Your task to perform on an android device: turn off data saver in the chrome app Image 0: 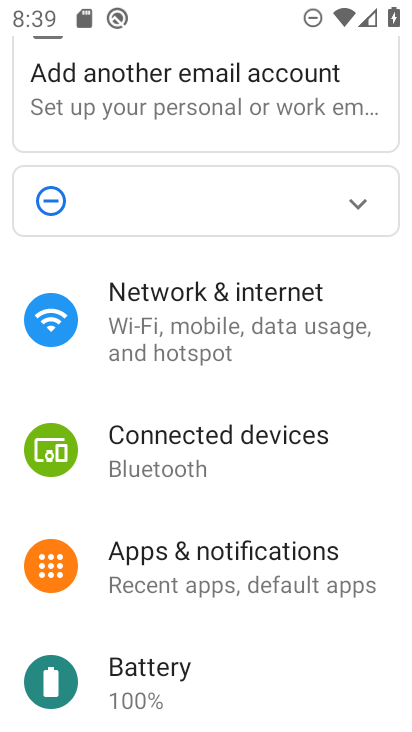
Step 0: press home button
Your task to perform on an android device: turn off data saver in the chrome app Image 1: 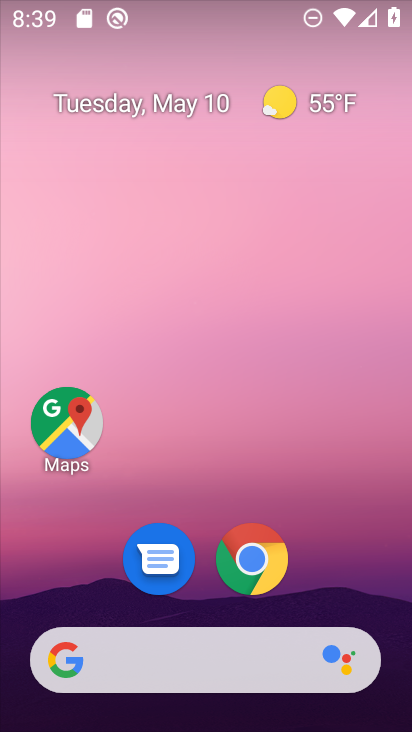
Step 1: click (249, 547)
Your task to perform on an android device: turn off data saver in the chrome app Image 2: 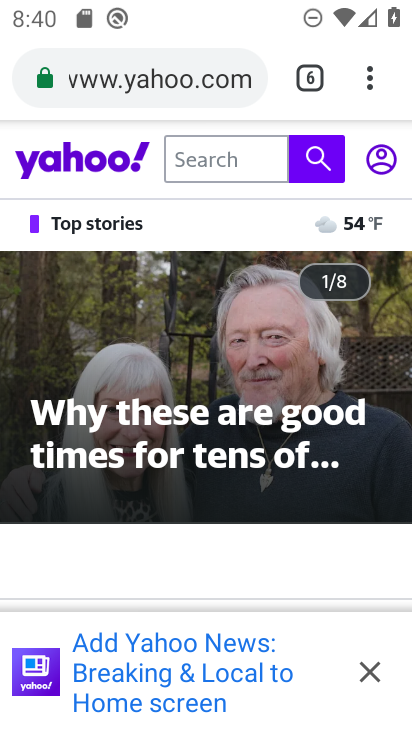
Step 2: click (370, 83)
Your task to perform on an android device: turn off data saver in the chrome app Image 3: 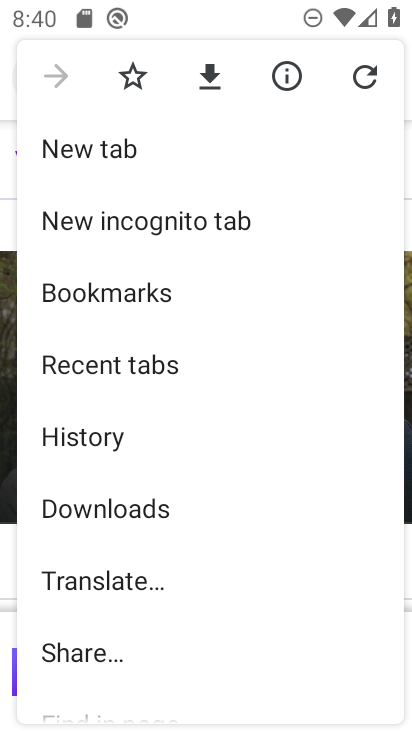
Step 3: drag from (139, 655) to (139, 244)
Your task to perform on an android device: turn off data saver in the chrome app Image 4: 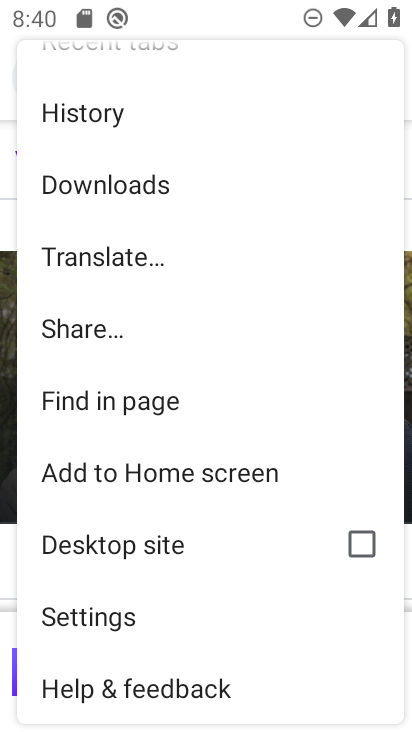
Step 4: click (94, 616)
Your task to perform on an android device: turn off data saver in the chrome app Image 5: 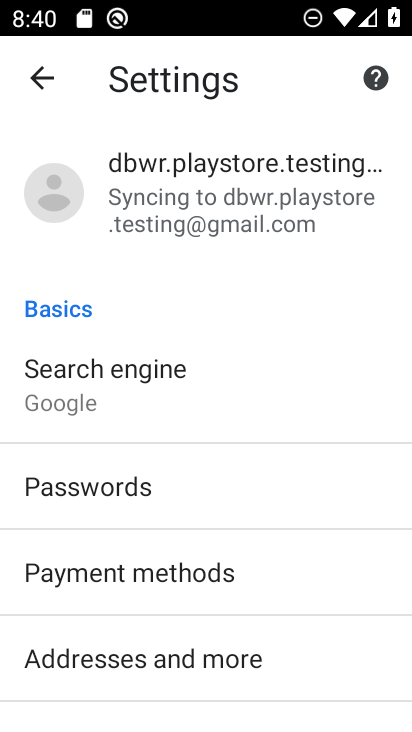
Step 5: drag from (165, 692) to (169, 275)
Your task to perform on an android device: turn off data saver in the chrome app Image 6: 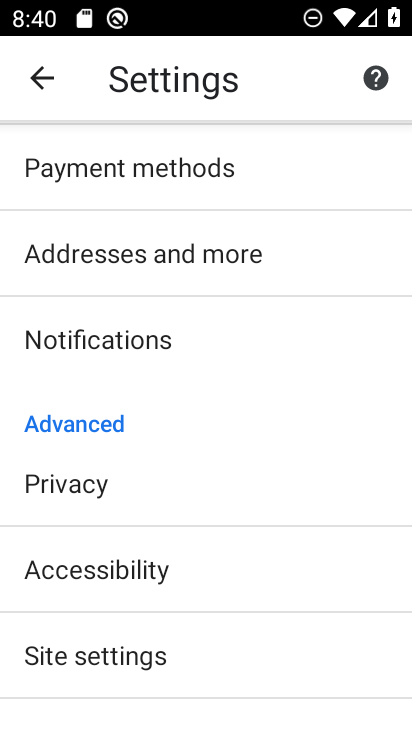
Step 6: drag from (126, 669) to (123, 376)
Your task to perform on an android device: turn off data saver in the chrome app Image 7: 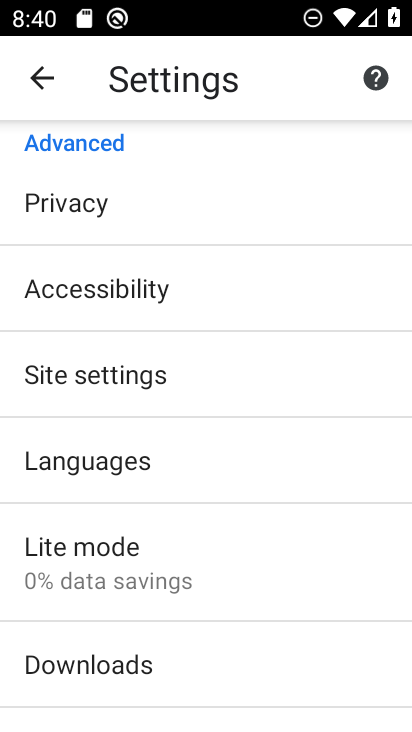
Step 7: click (112, 552)
Your task to perform on an android device: turn off data saver in the chrome app Image 8: 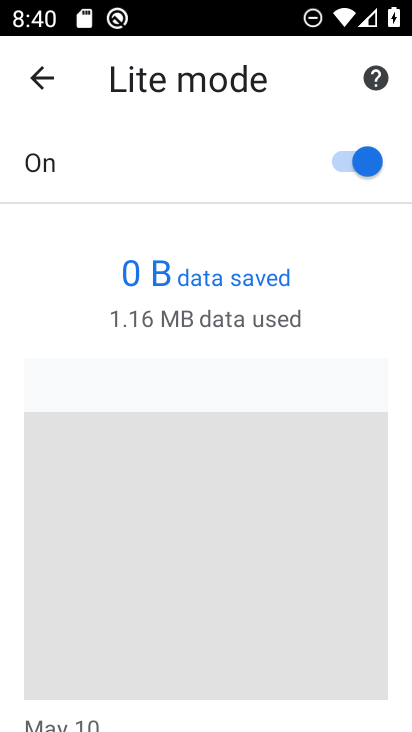
Step 8: click (350, 157)
Your task to perform on an android device: turn off data saver in the chrome app Image 9: 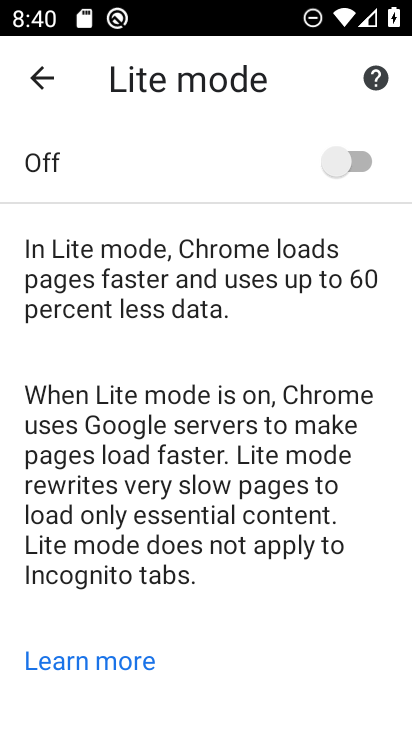
Step 9: task complete